Your task to perform on an android device: Where can I buy a nice beach chair? Image 0: 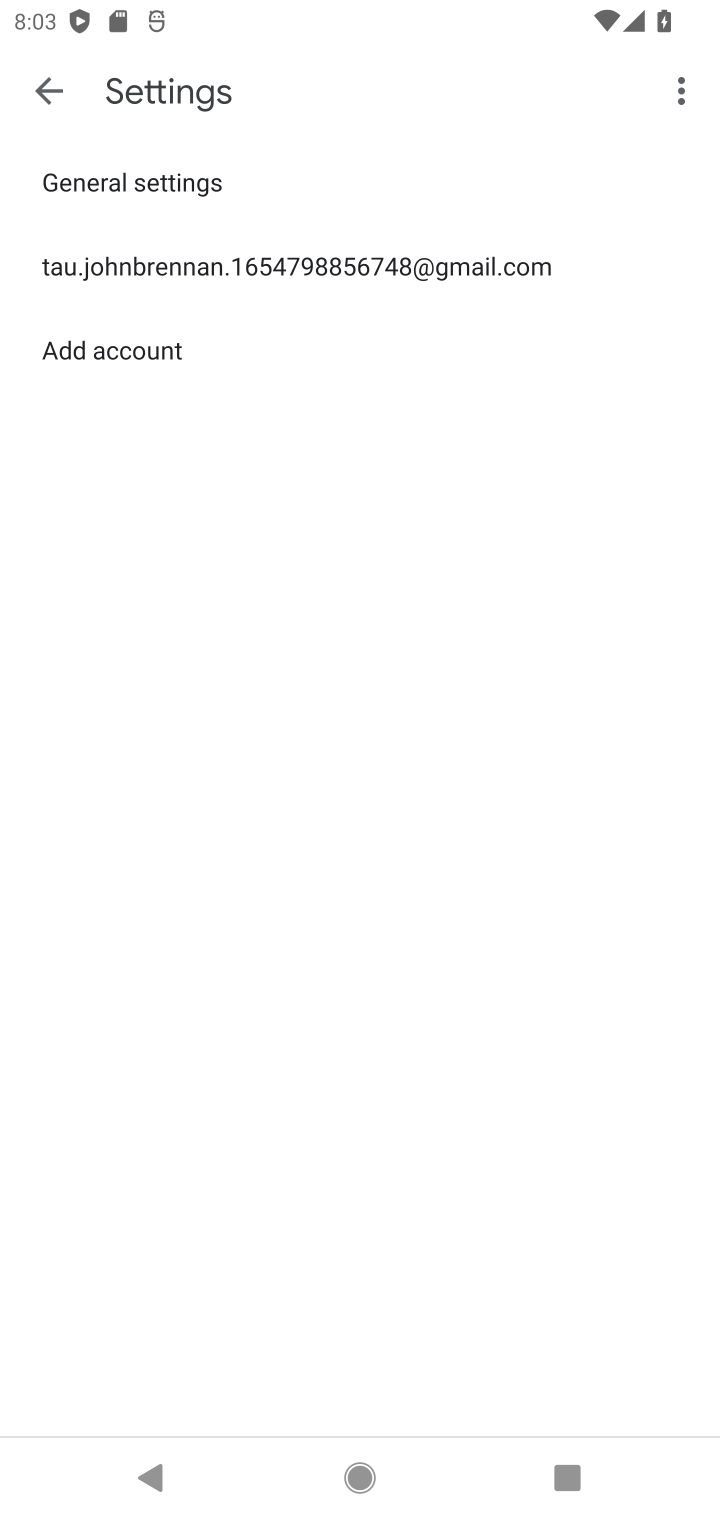
Step 0: press home button
Your task to perform on an android device: Where can I buy a nice beach chair? Image 1: 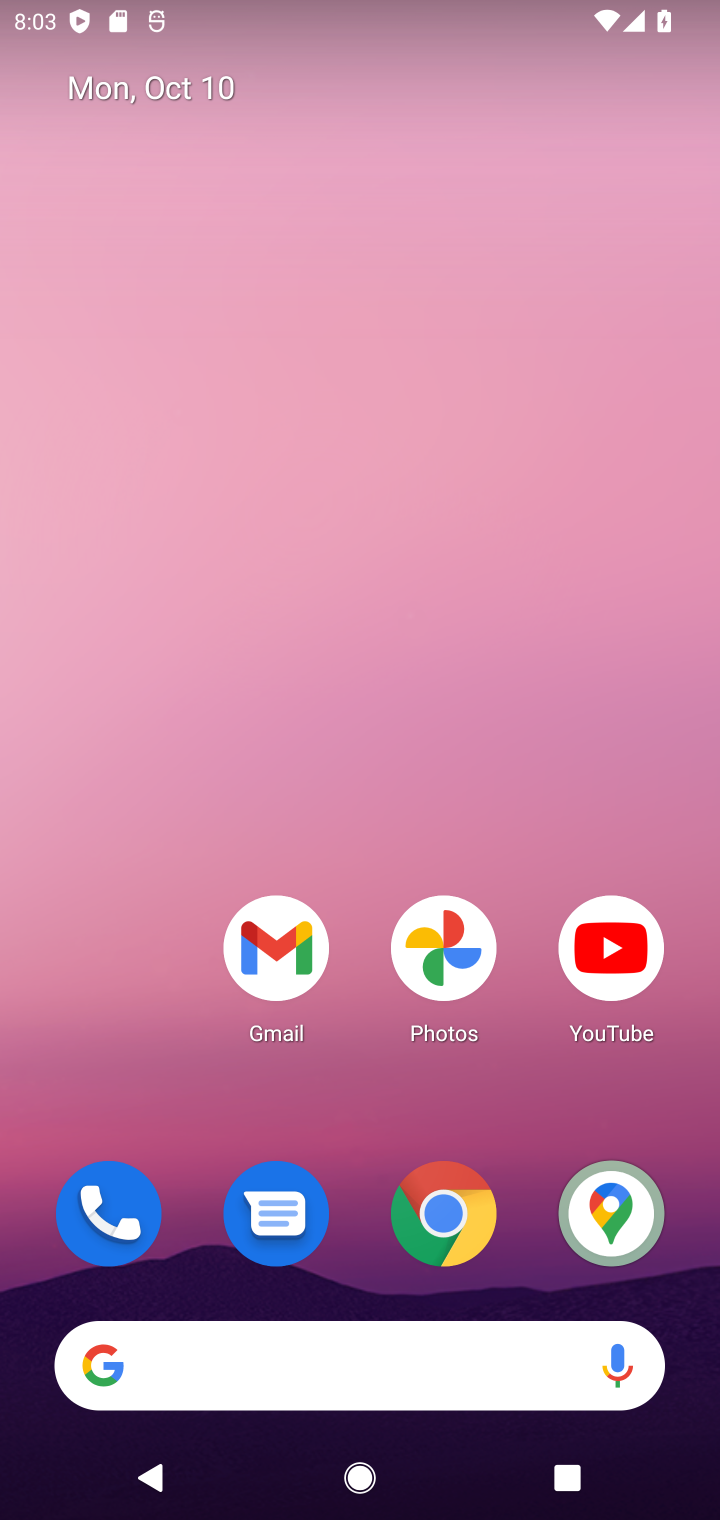
Step 1: click (288, 1370)
Your task to perform on an android device: Where can I buy a nice beach chair? Image 2: 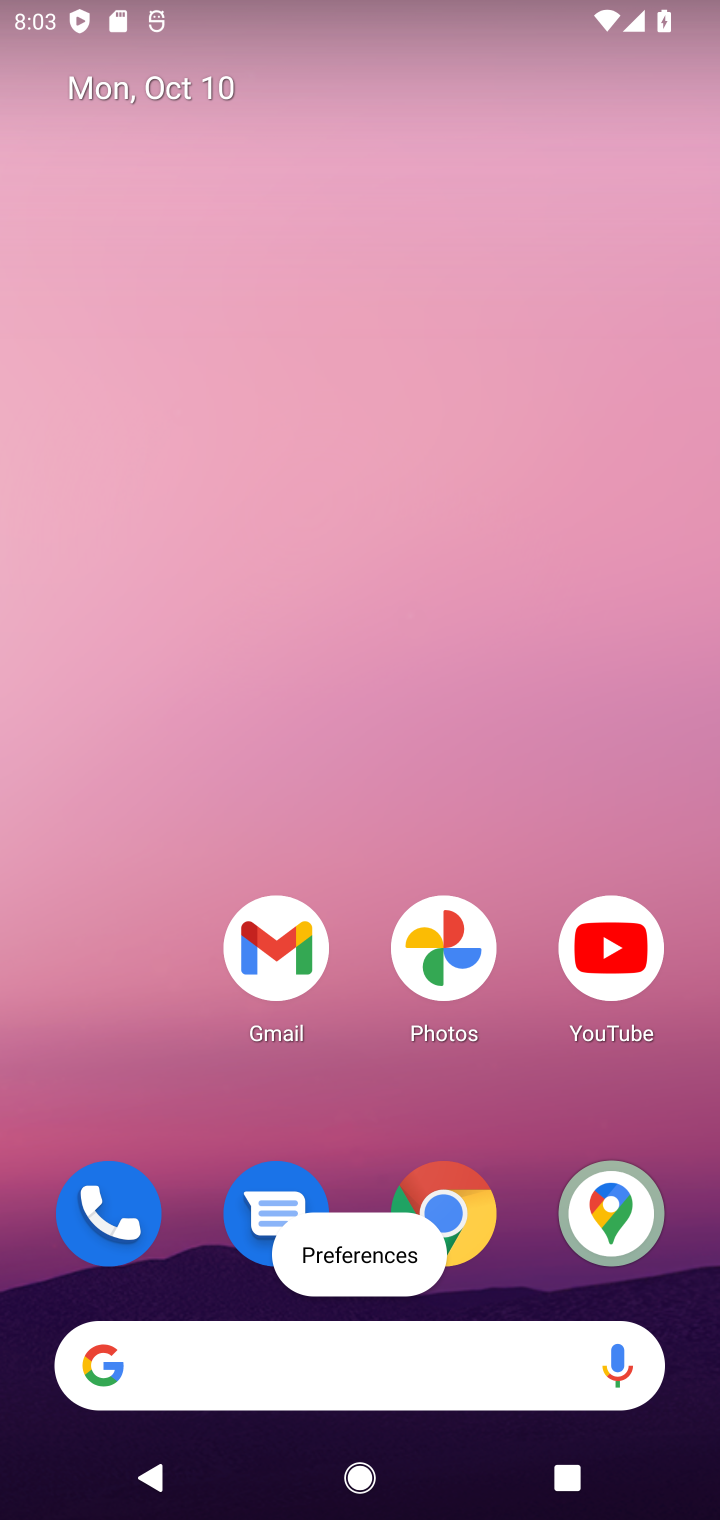
Step 2: click (255, 1387)
Your task to perform on an android device: Where can I buy a nice beach chair? Image 3: 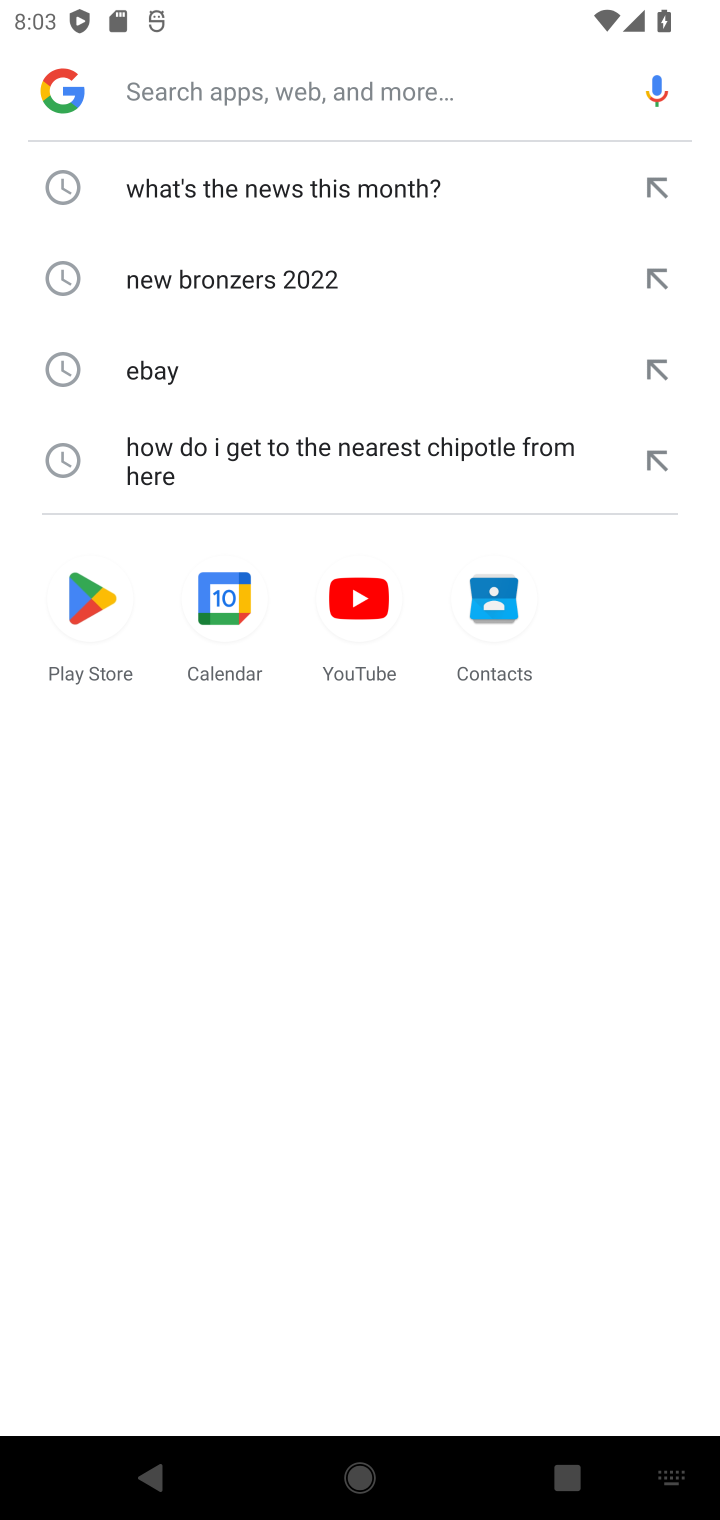
Step 3: click (216, 1361)
Your task to perform on an android device: Where can I buy a nice beach chair? Image 4: 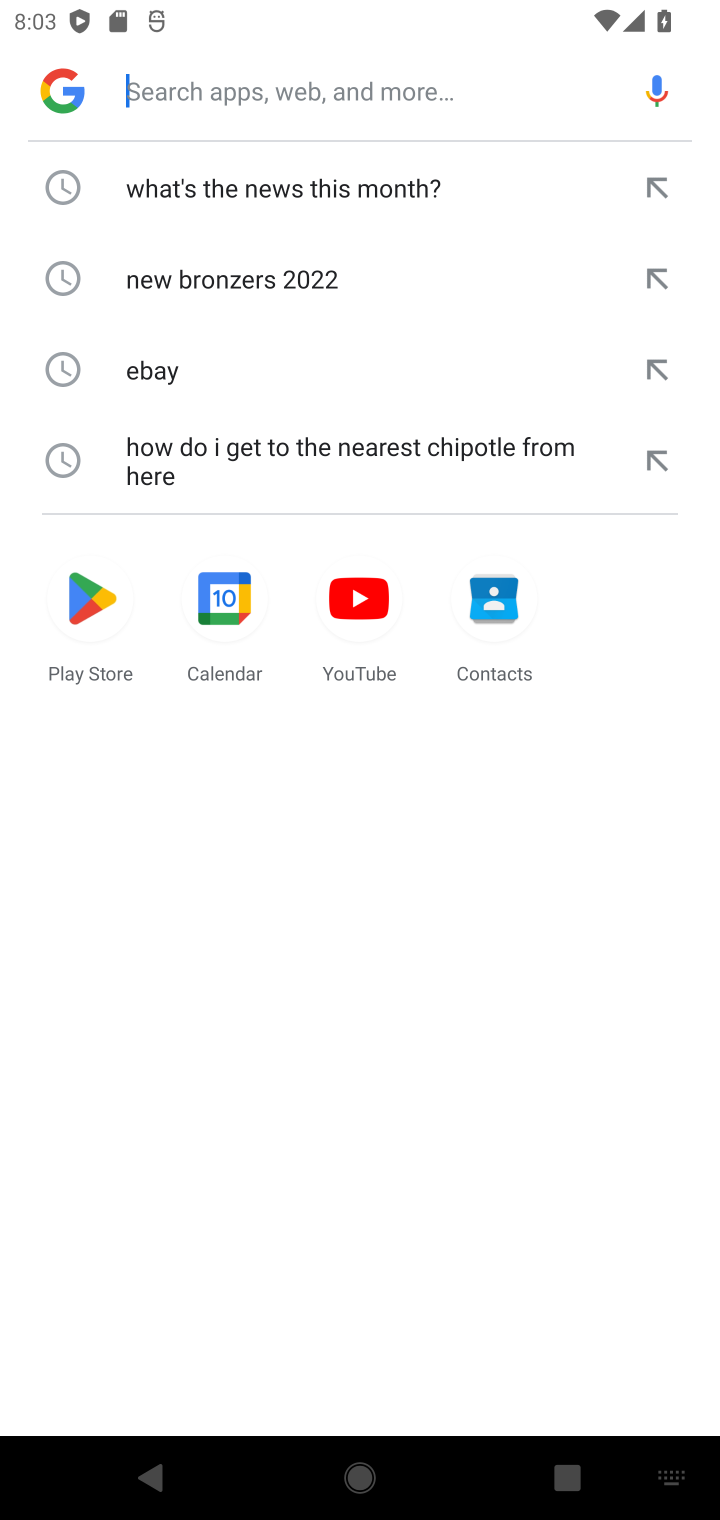
Step 4: click (195, 72)
Your task to perform on an android device: Where can I buy a nice beach chair? Image 5: 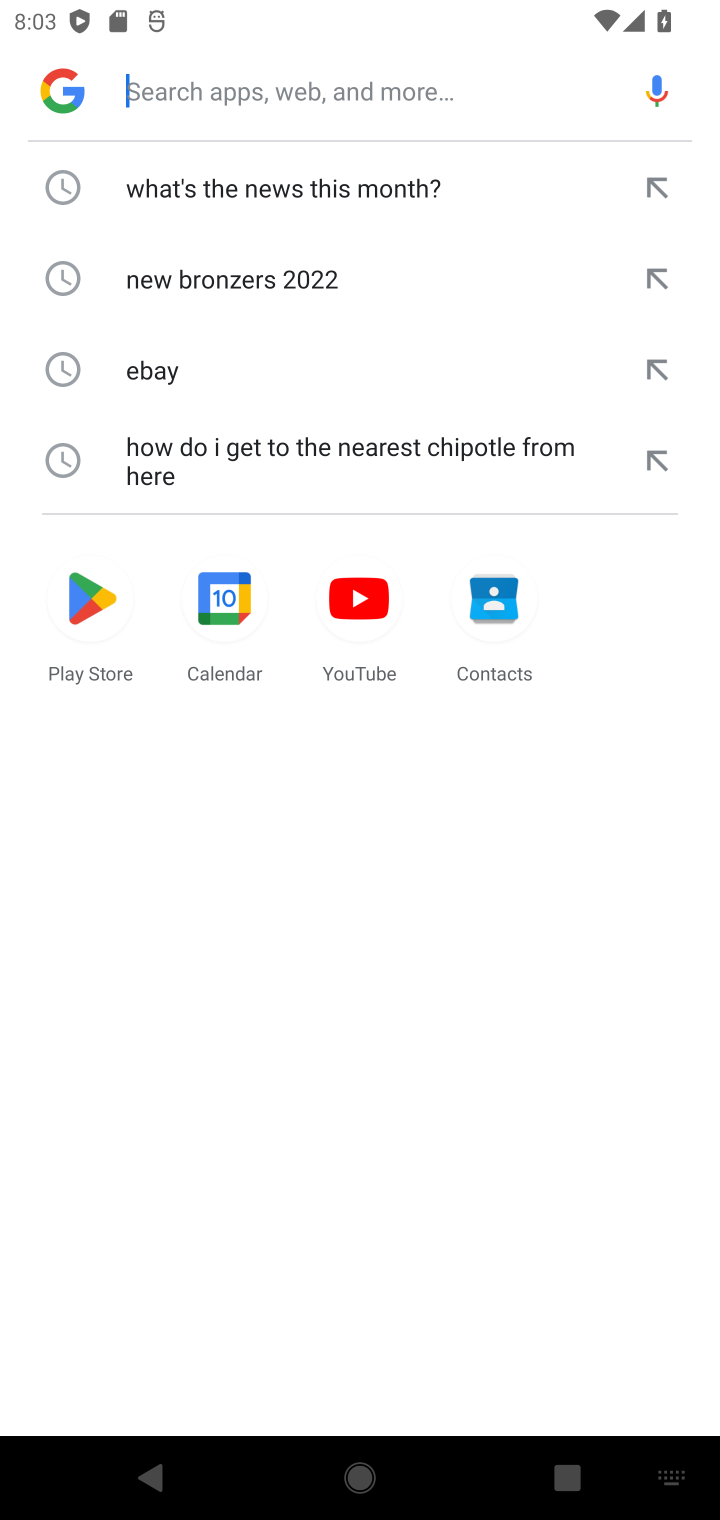
Step 5: type "Where can I buy a nice beach chair"
Your task to perform on an android device: Where can I buy a nice beach chair? Image 6: 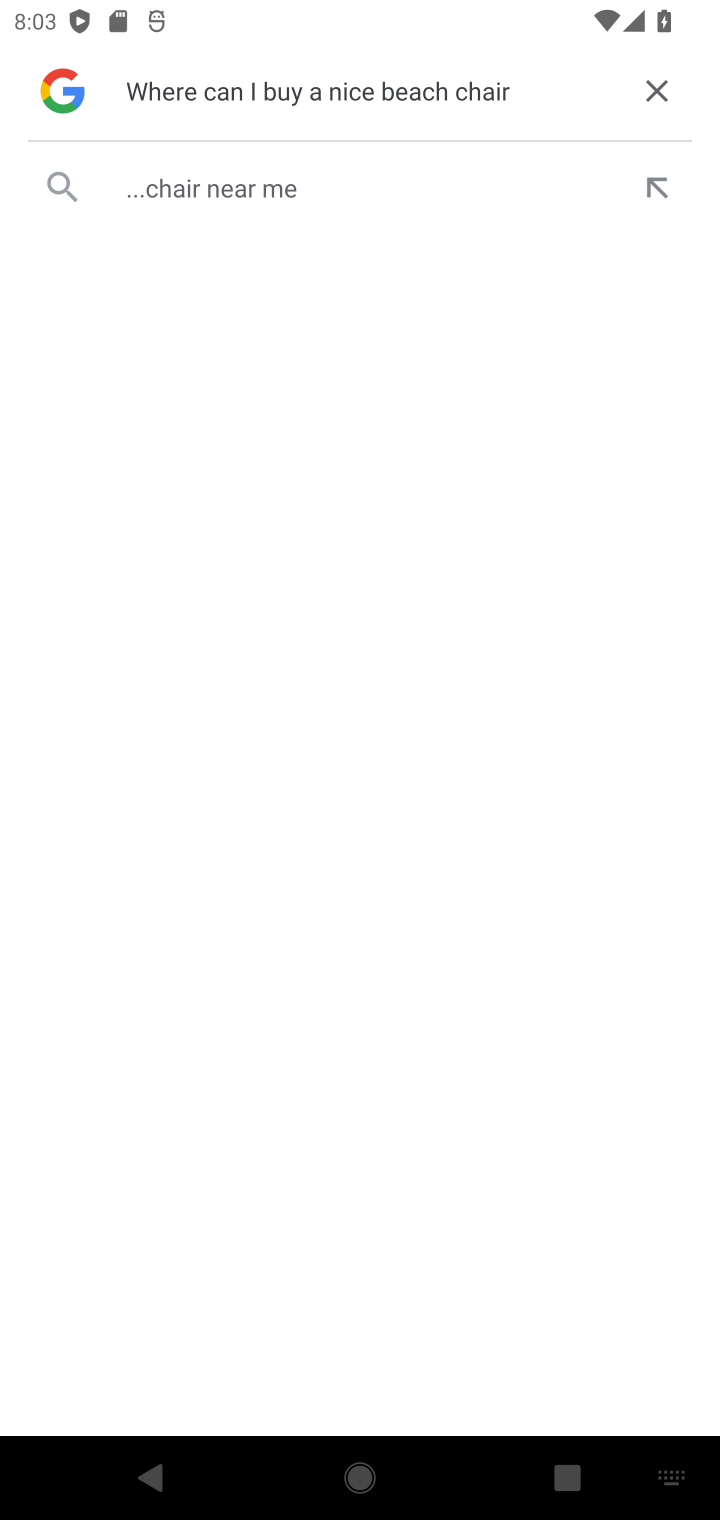
Step 6: click (288, 171)
Your task to perform on an android device: Where can I buy a nice beach chair? Image 7: 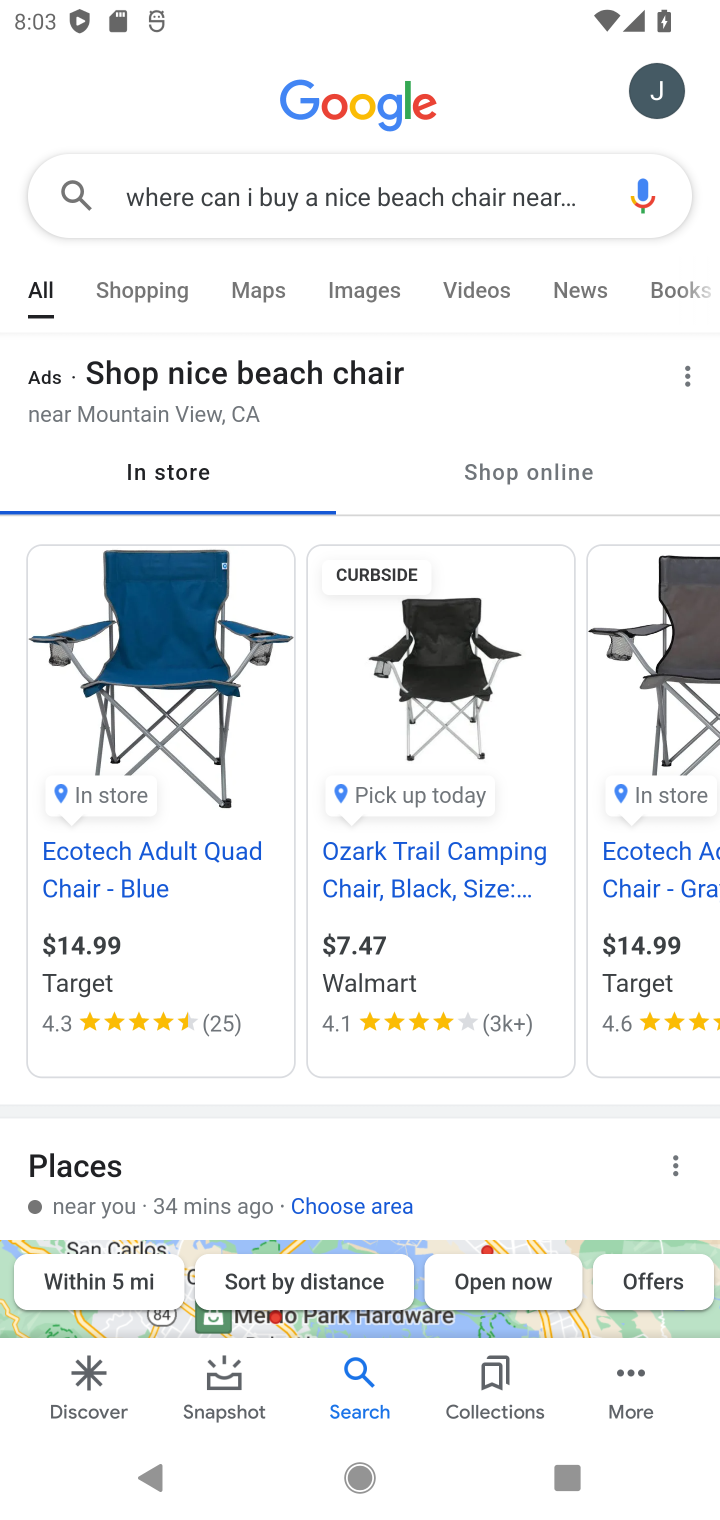
Step 7: task complete